Your task to perform on an android device: Open Youtube and go to the subscriptions tab Image 0: 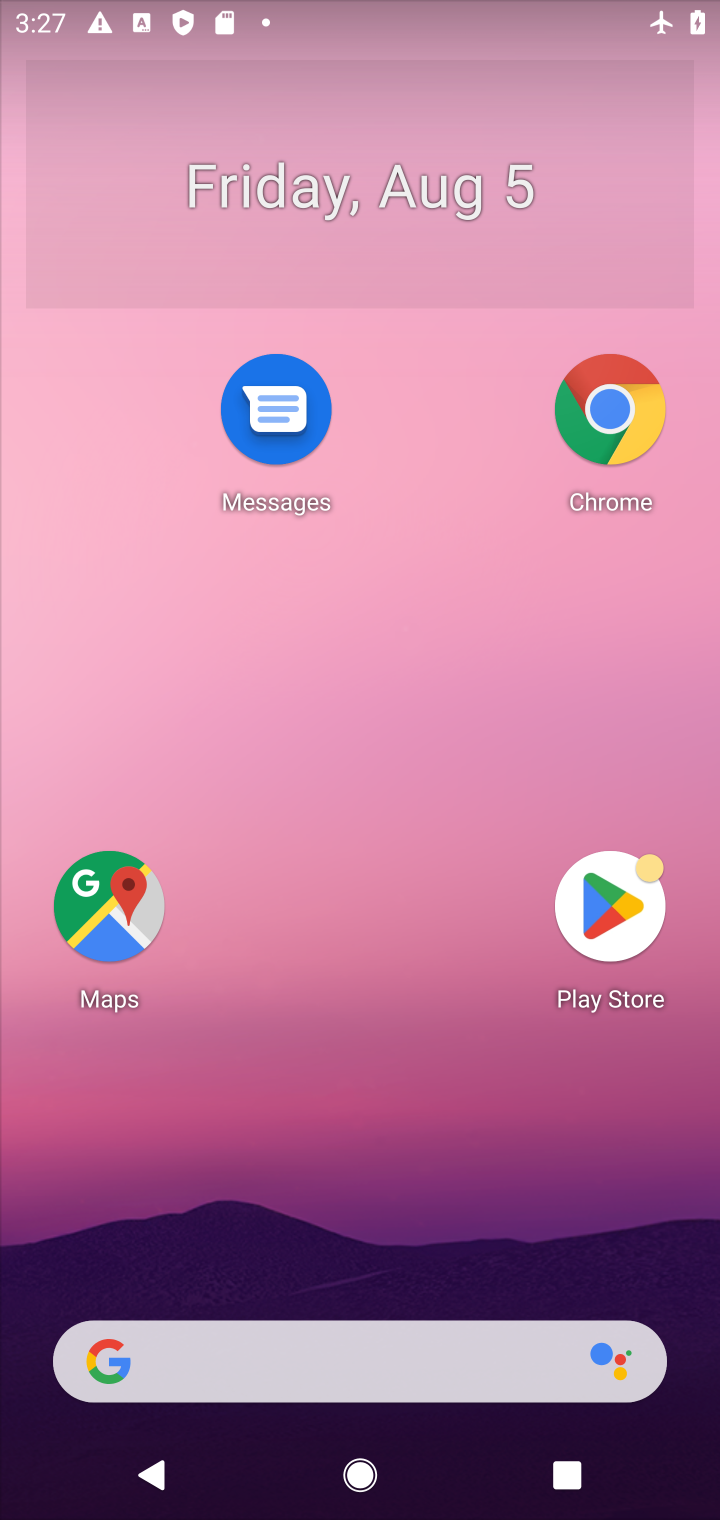
Step 0: drag from (428, 1106) to (428, 260)
Your task to perform on an android device: Open Youtube and go to the subscriptions tab Image 1: 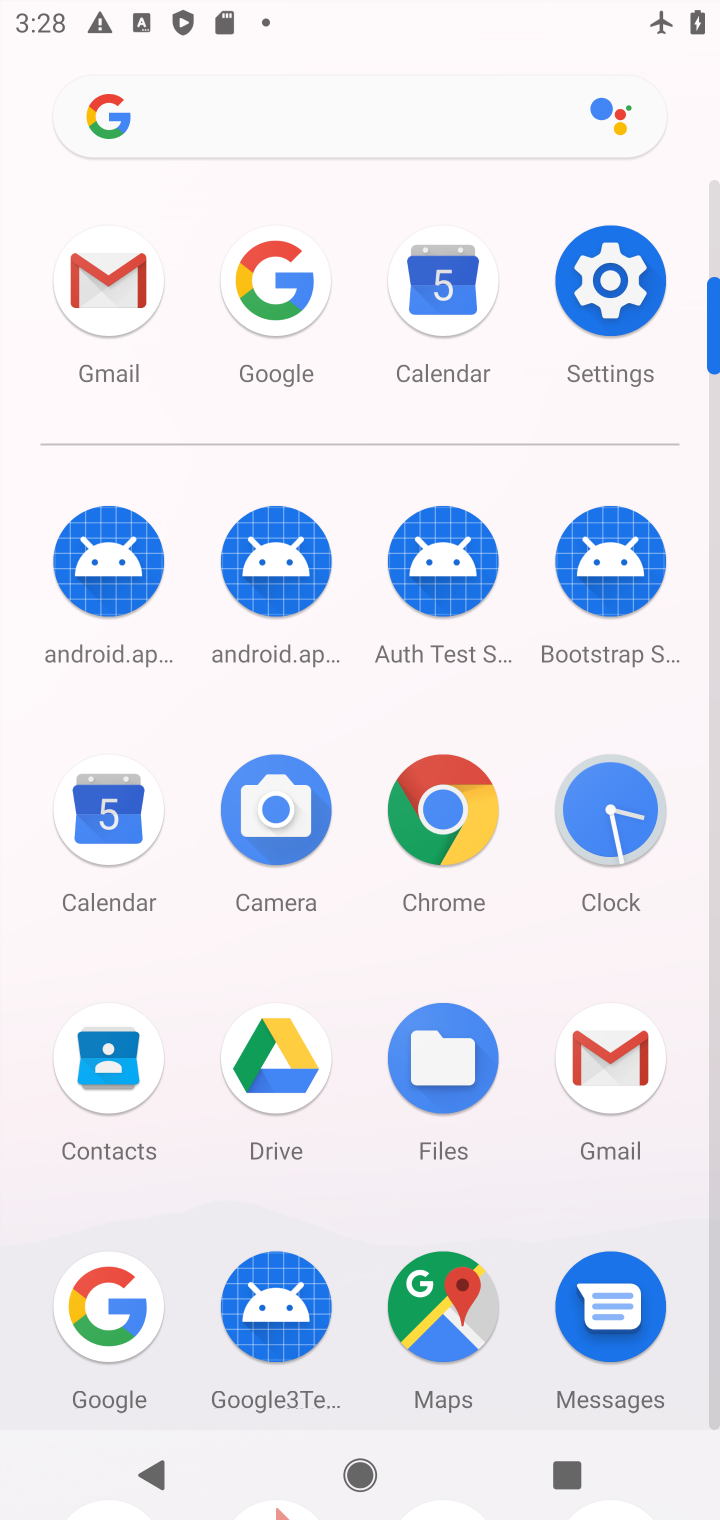
Step 1: drag from (357, 1000) to (357, 431)
Your task to perform on an android device: Open Youtube and go to the subscriptions tab Image 2: 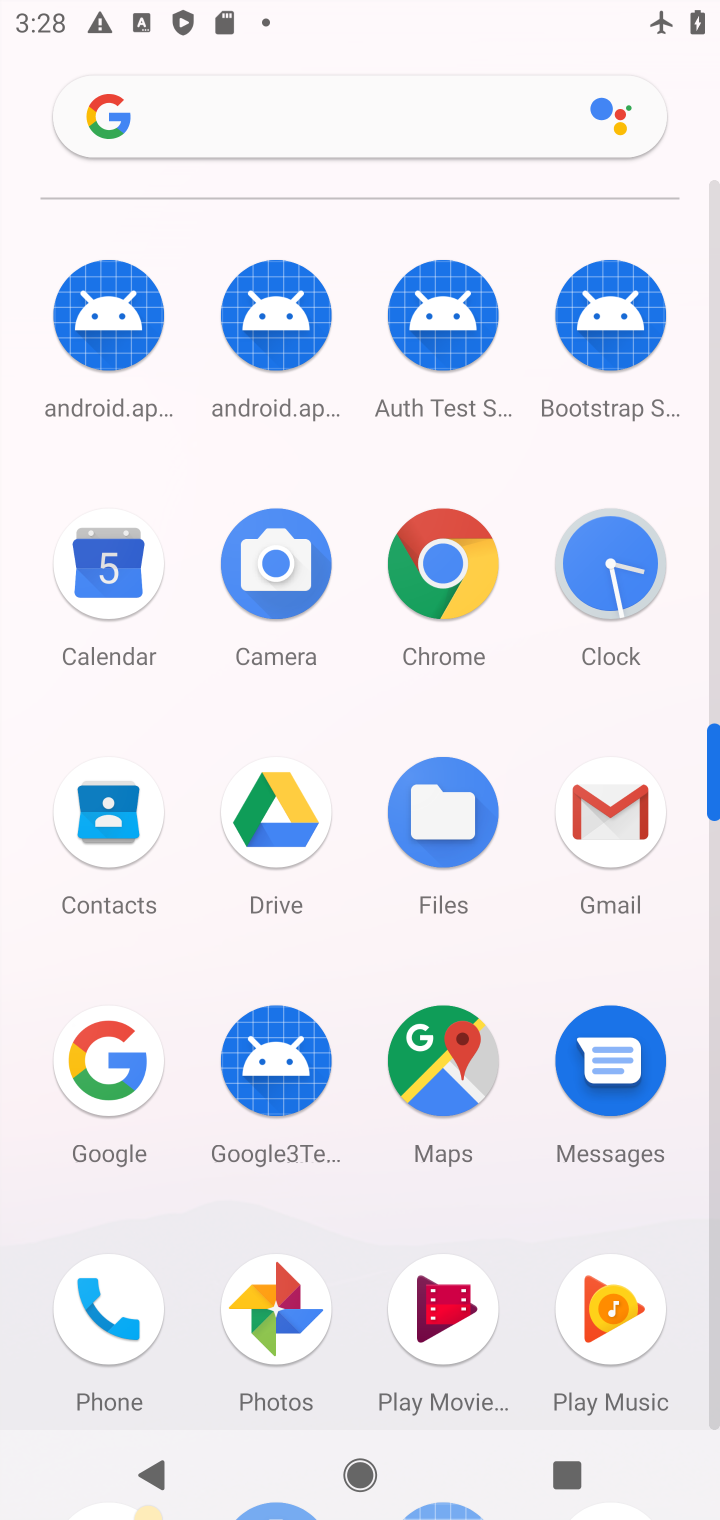
Step 2: drag from (360, 1126) to (360, 551)
Your task to perform on an android device: Open Youtube and go to the subscriptions tab Image 3: 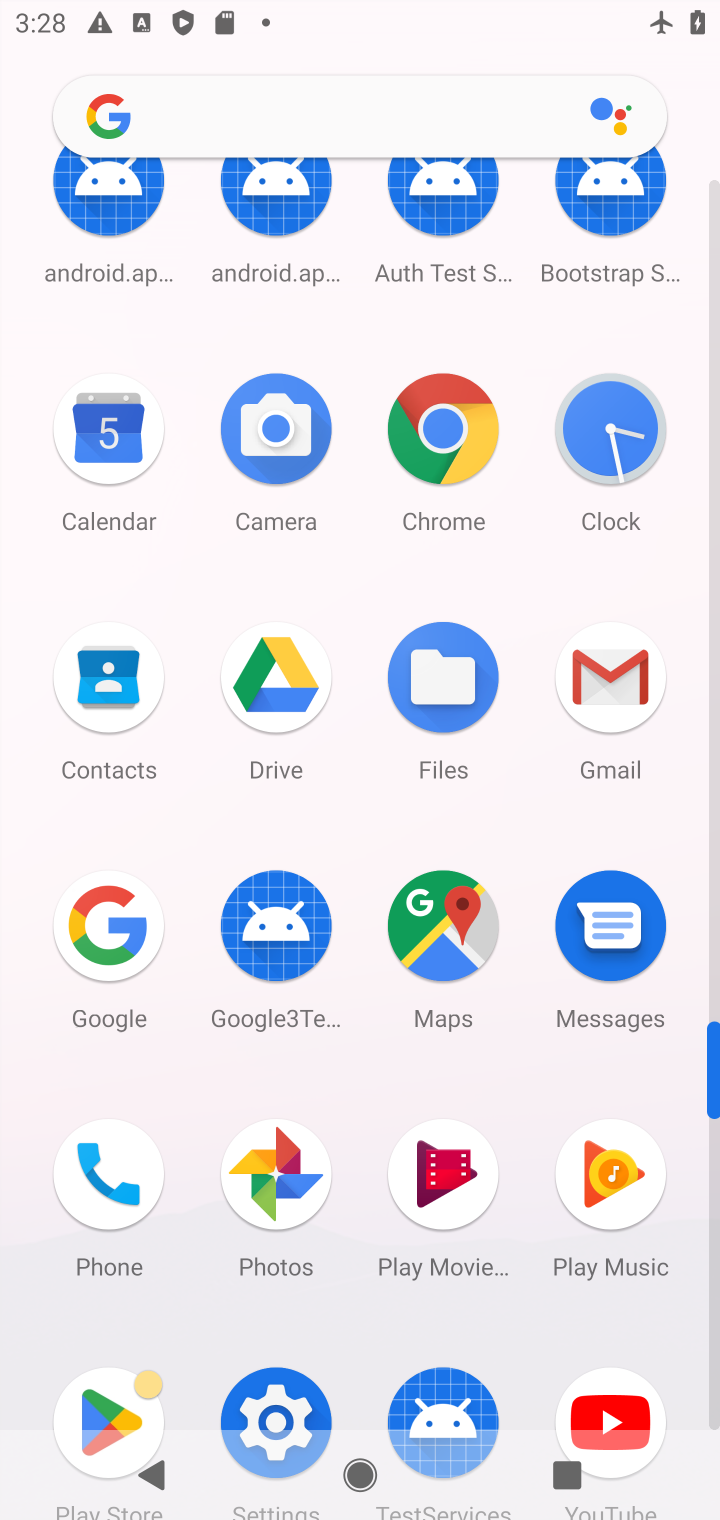
Step 3: click (608, 1385)
Your task to perform on an android device: Open Youtube and go to the subscriptions tab Image 4: 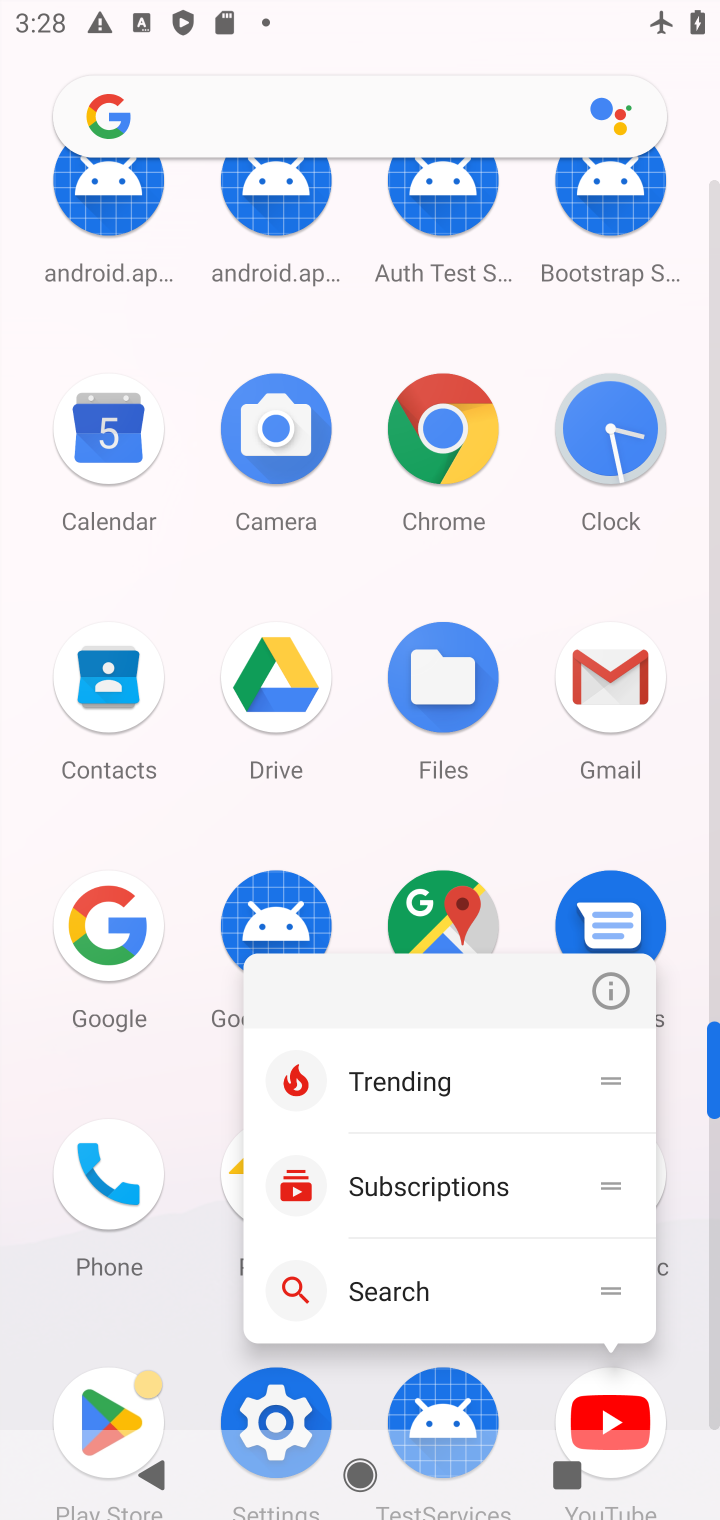
Step 4: click (596, 1381)
Your task to perform on an android device: Open Youtube and go to the subscriptions tab Image 5: 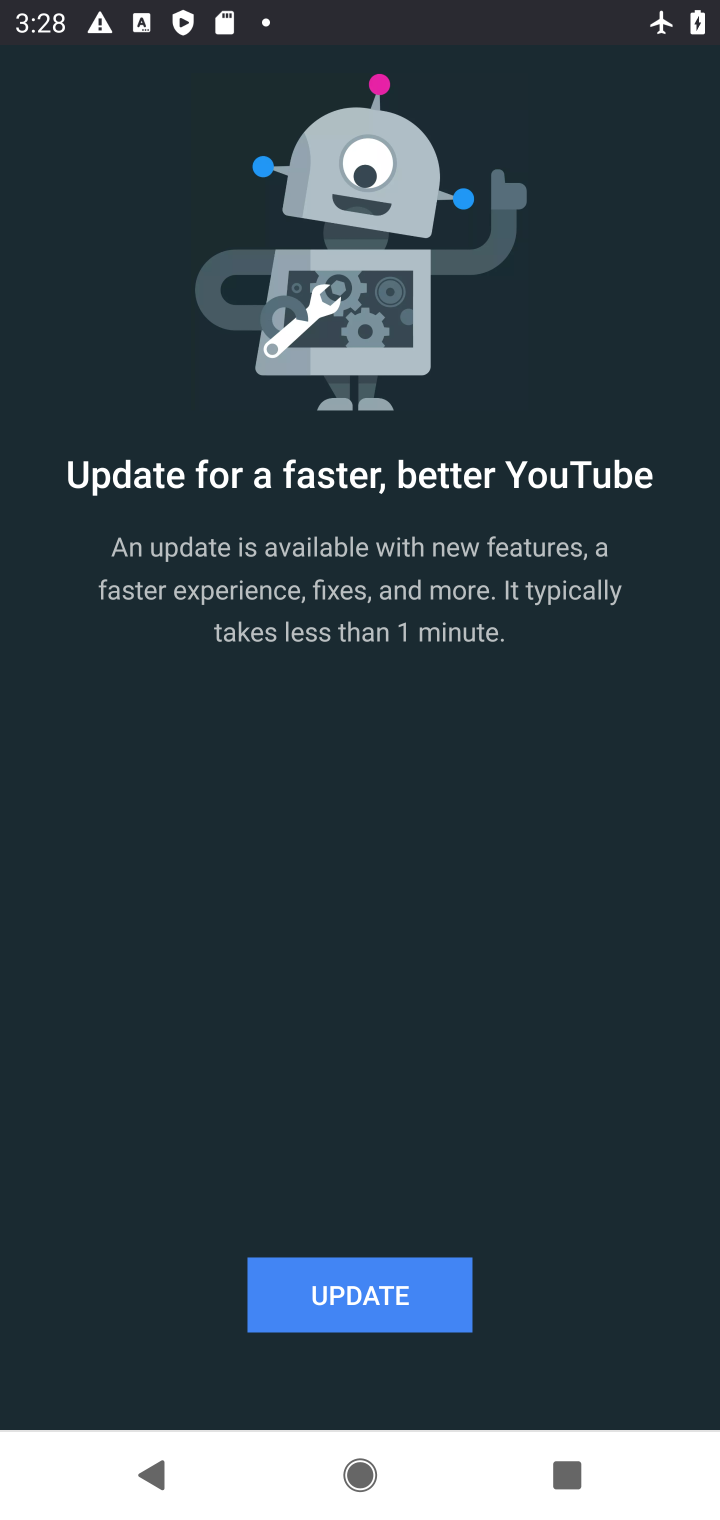
Step 5: click (405, 1291)
Your task to perform on an android device: Open Youtube and go to the subscriptions tab Image 6: 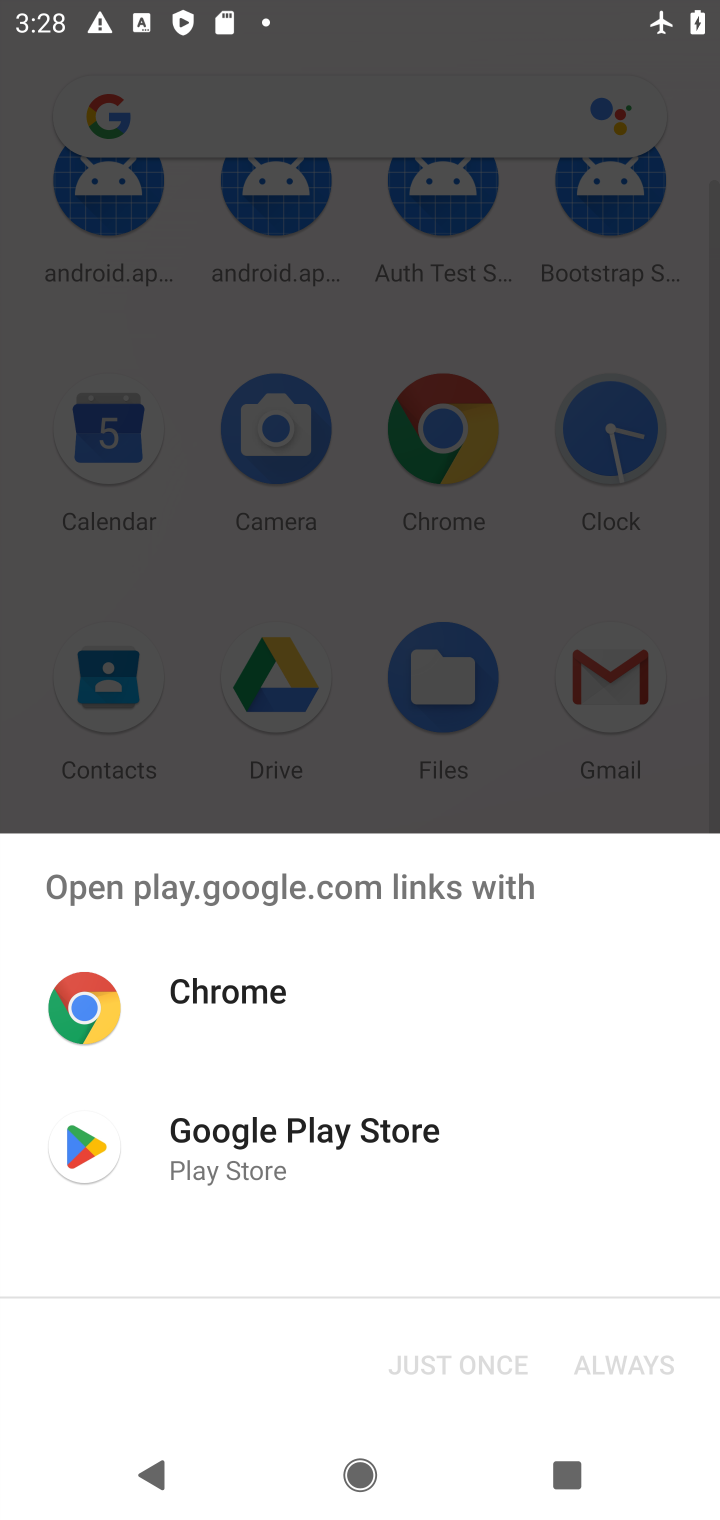
Step 6: click (392, 1173)
Your task to perform on an android device: Open Youtube and go to the subscriptions tab Image 7: 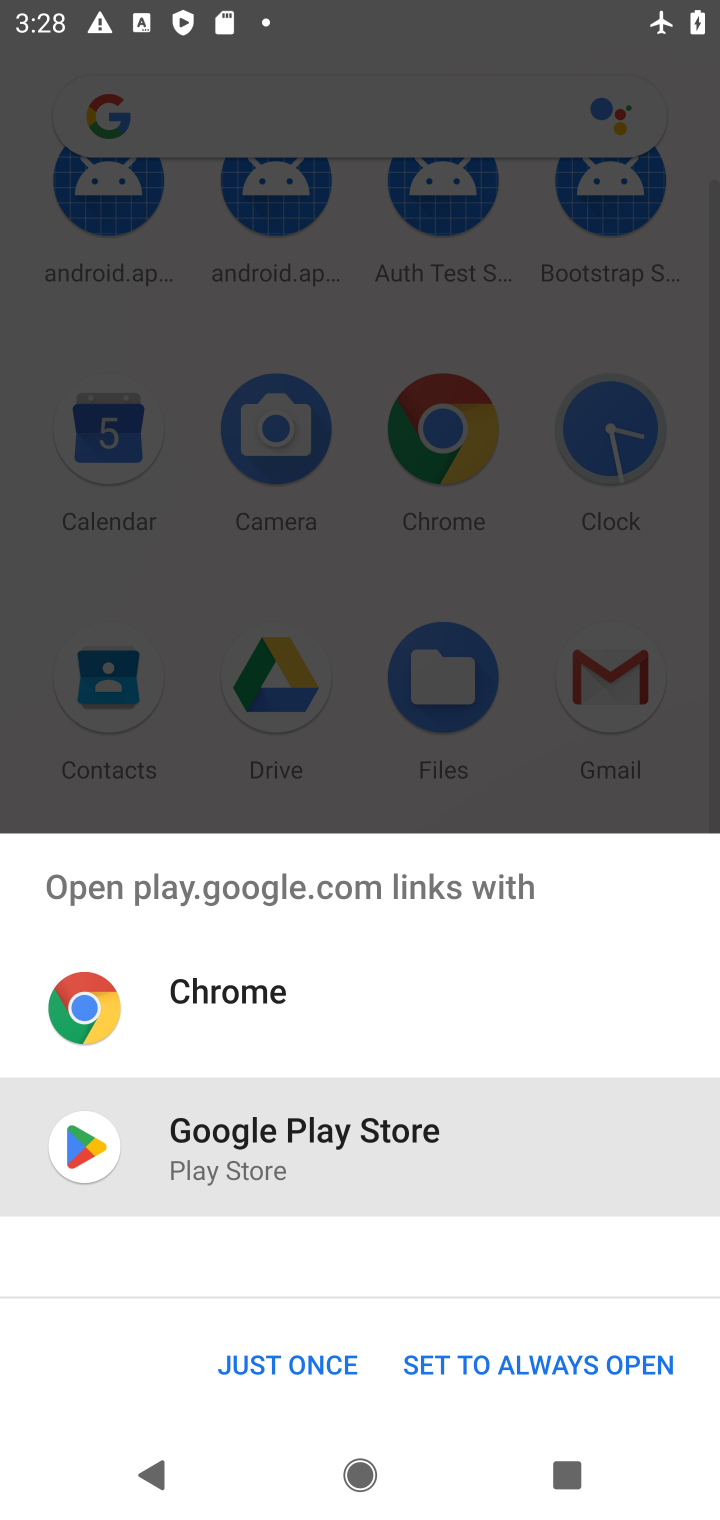
Step 7: click (266, 1384)
Your task to perform on an android device: Open Youtube and go to the subscriptions tab Image 8: 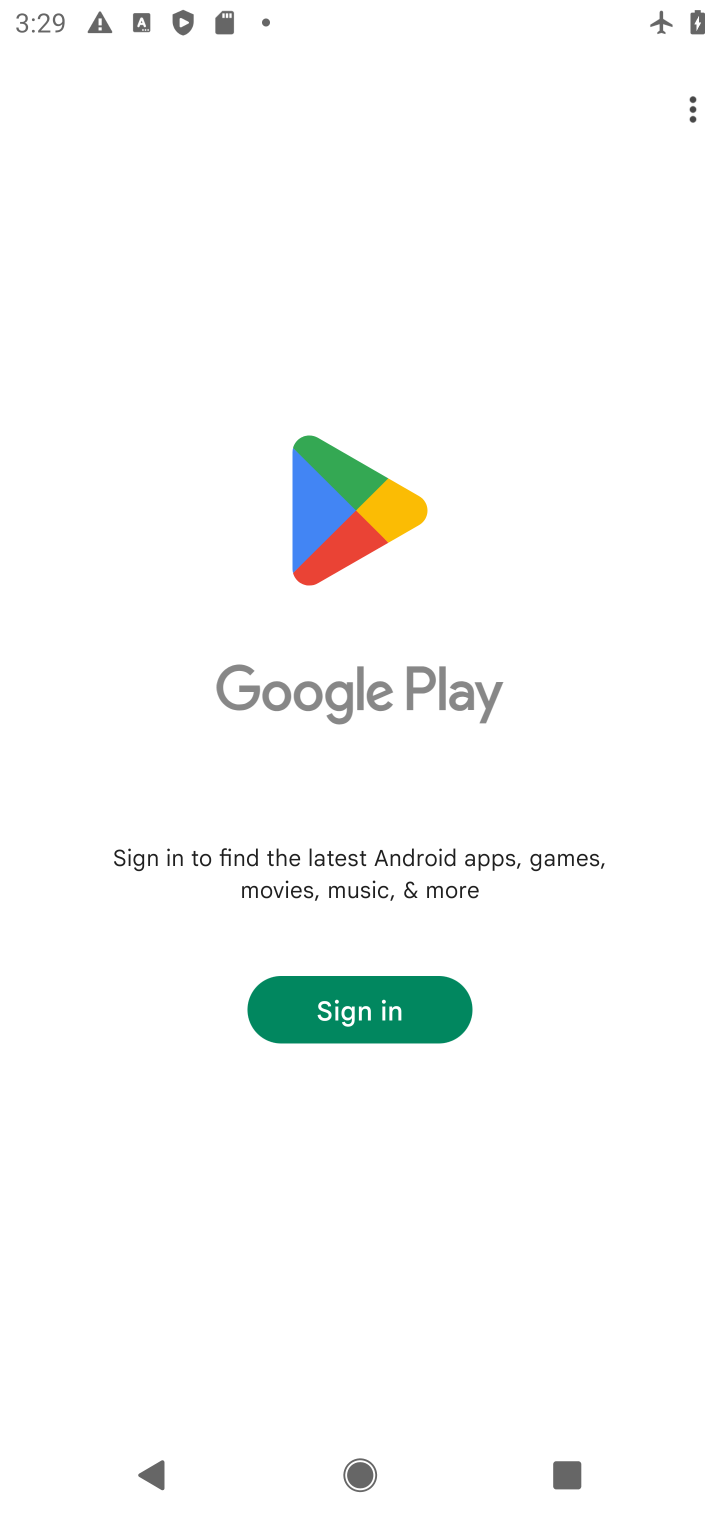
Step 8: task complete